Your task to perform on an android device: Show me recent news Image 0: 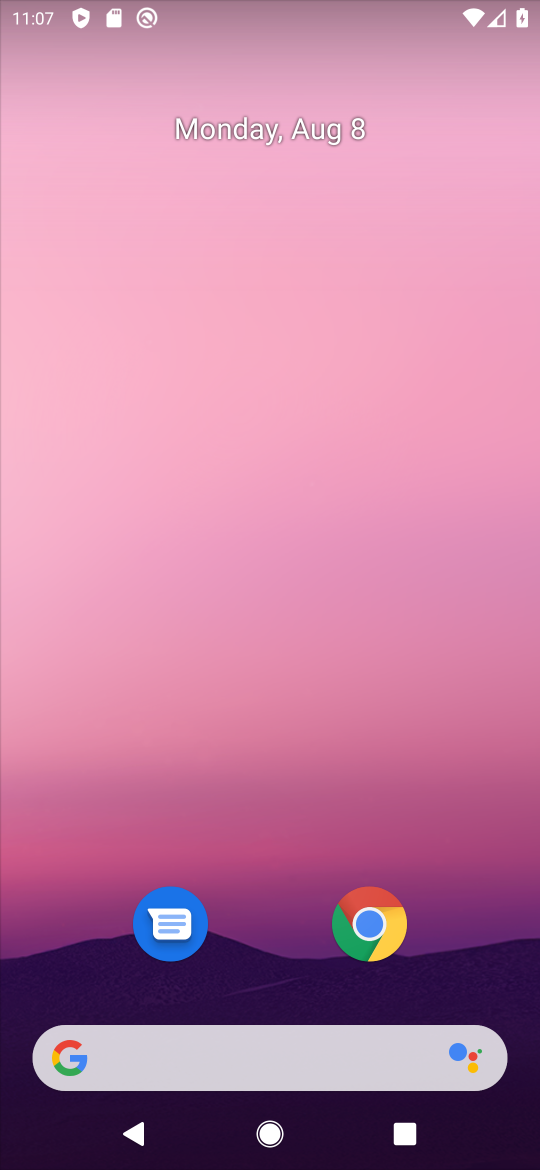
Step 0: click (194, 1040)
Your task to perform on an android device: Show me recent news Image 1: 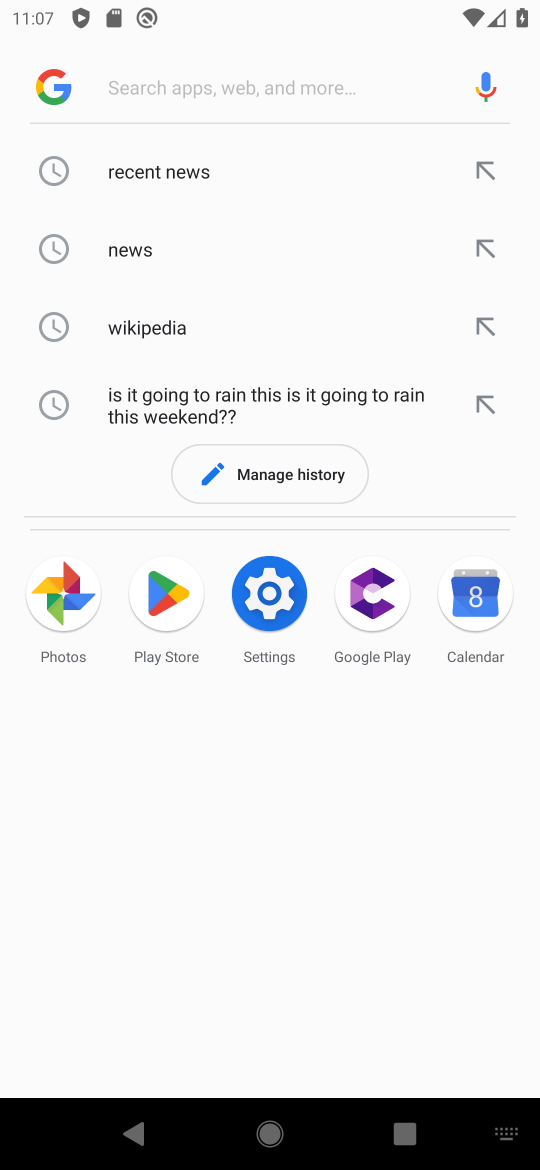
Step 1: click (152, 175)
Your task to perform on an android device: Show me recent news Image 2: 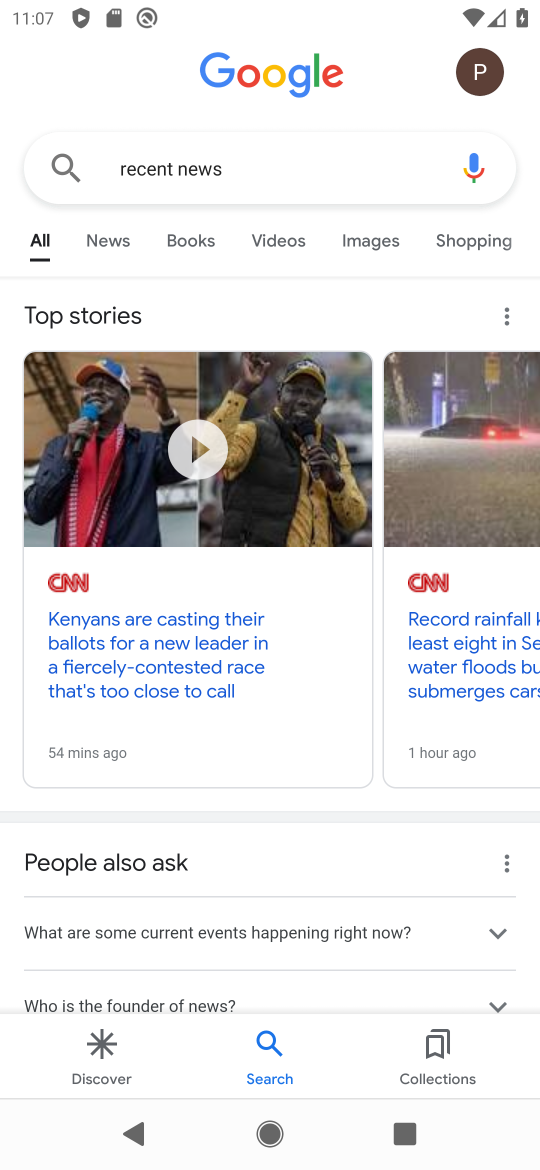
Step 2: task complete